Your task to perform on an android device: What's the weather? Image 0: 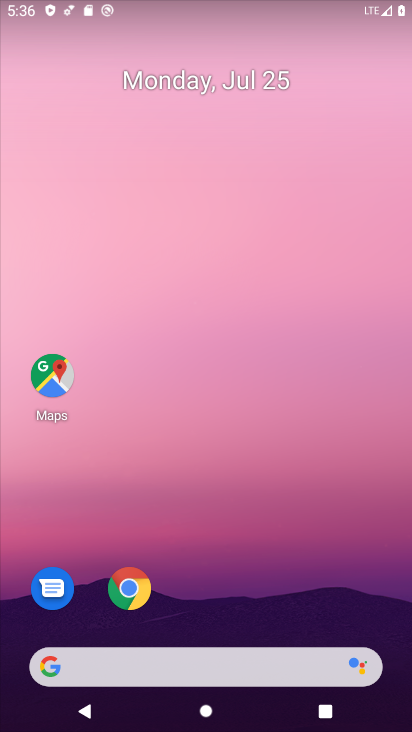
Step 0: drag from (186, 672) to (222, 143)
Your task to perform on an android device: What's the weather? Image 1: 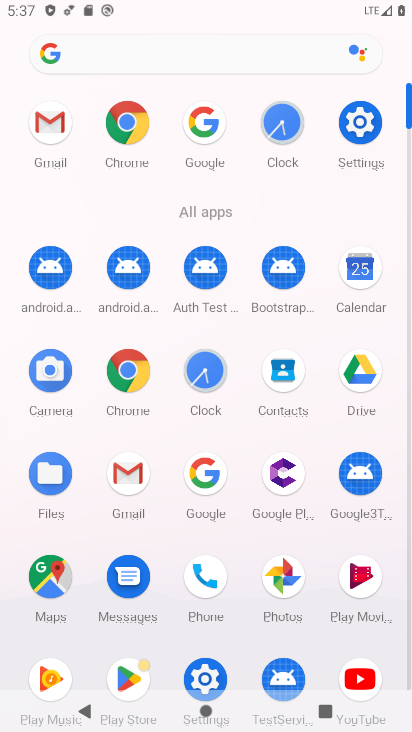
Step 1: click (202, 119)
Your task to perform on an android device: What's the weather? Image 2: 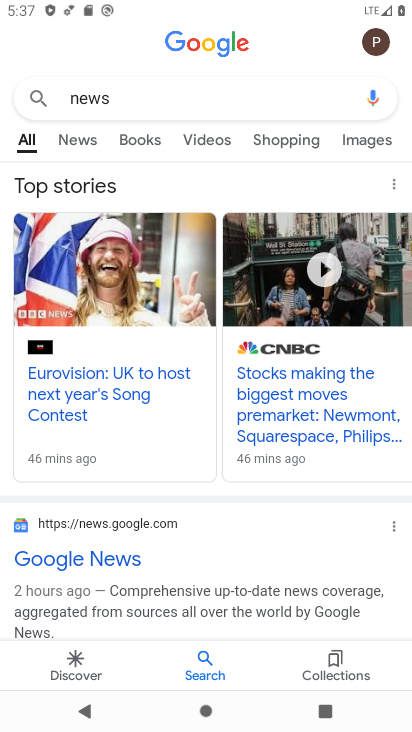
Step 2: click (226, 99)
Your task to perform on an android device: What's the weather? Image 3: 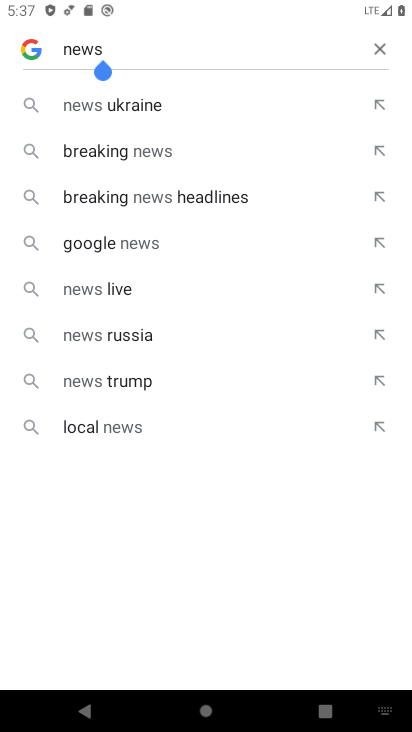
Step 3: click (375, 43)
Your task to perform on an android device: What's the weather? Image 4: 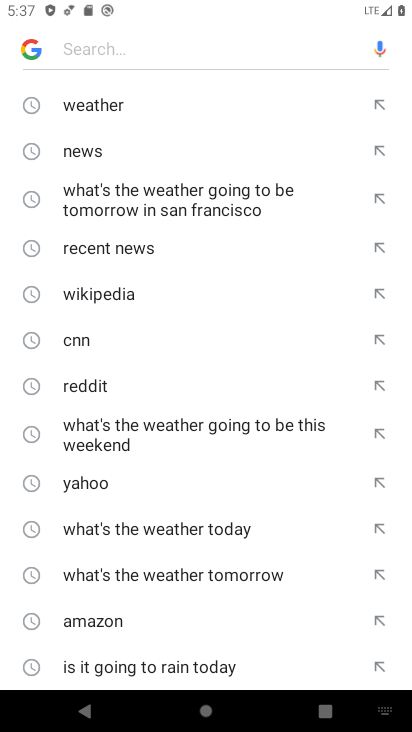
Step 4: click (88, 109)
Your task to perform on an android device: What's the weather? Image 5: 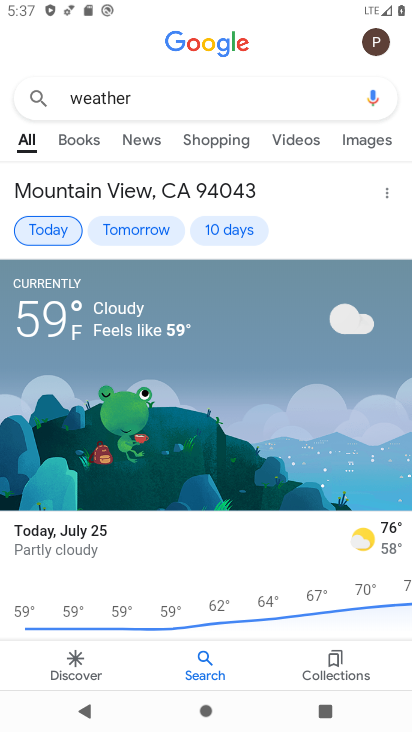
Step 5: task complete